Your task to perform on an android device: change text size in settings app Image 0: 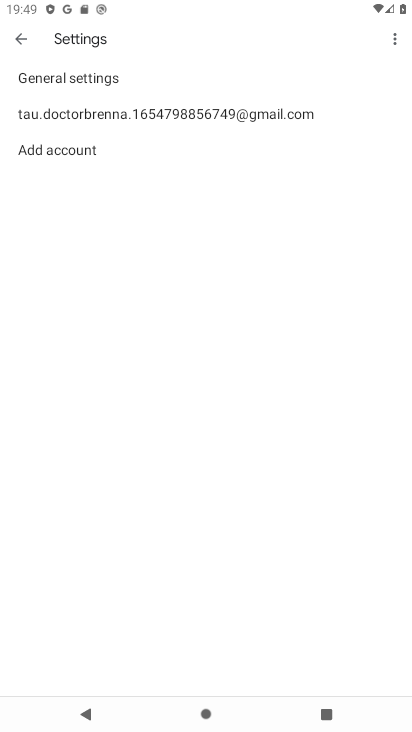
Step 0: press home button
Your task to perform on an android device: change text size in settings app Image 1: 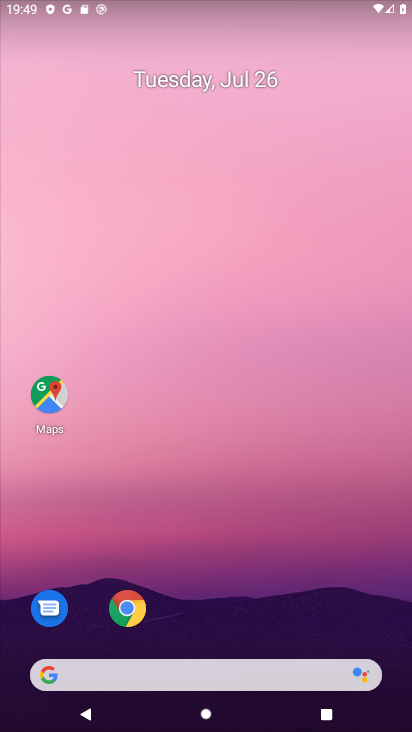
Step 1: drag from (282, 645) to (278, 58)
Your task to perform on an android device: change text size in settings app Image 2: 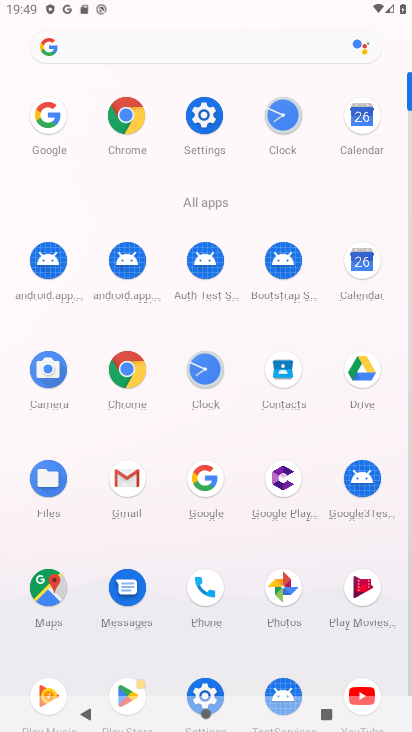
Step 2: click (210, 117)
Your task to perform on an android device: change text size in settings app Image 3: 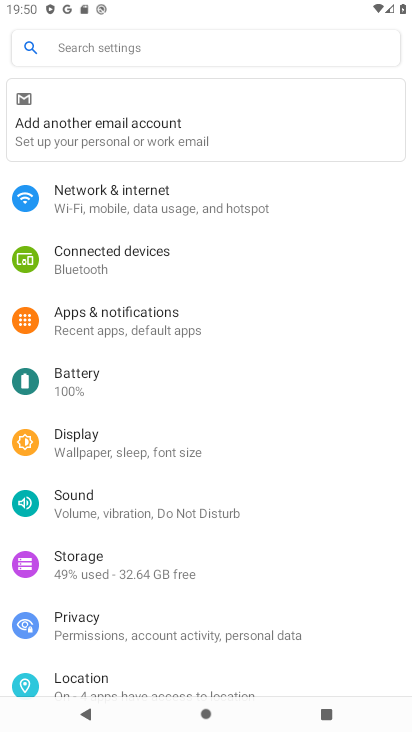
Step 3: click (127, 445)
Your task to perform on an android device: change text size in settings app Image 4: 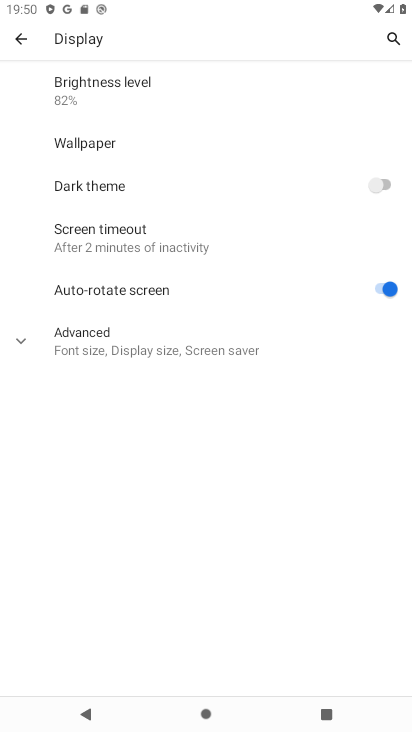
Step 4: click (160, 349)
Your task to perform on an android device: change text size in settings app Image 5: 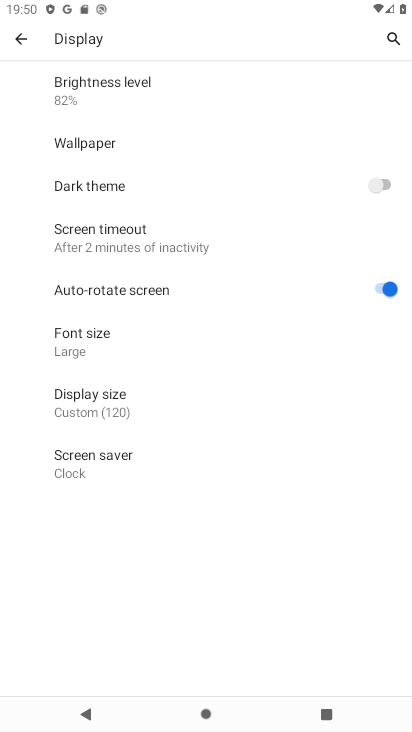
Step 5: click (66, 347)
Your task to perform on an android device: change text size in settings app Image 6: 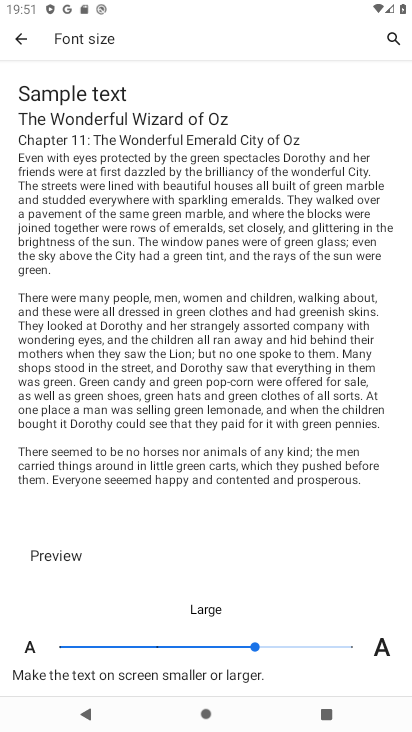
Step 6: click (297, 643)
Your task to perform on an android device: change text size in settings app Image 7: 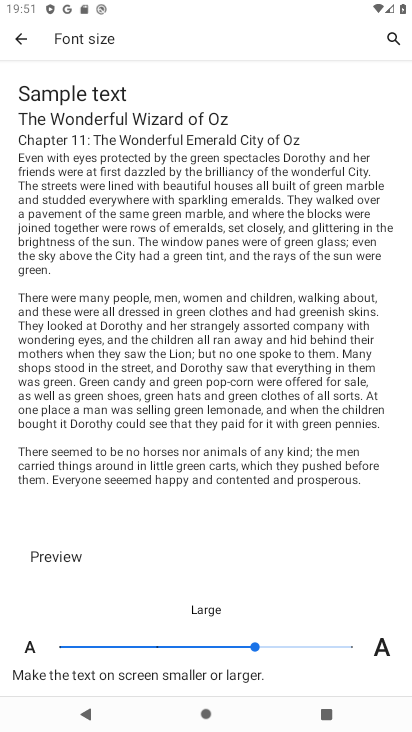
Step 7: task complete